Your task to perform on an android device: toggle sleep mode Image 0: 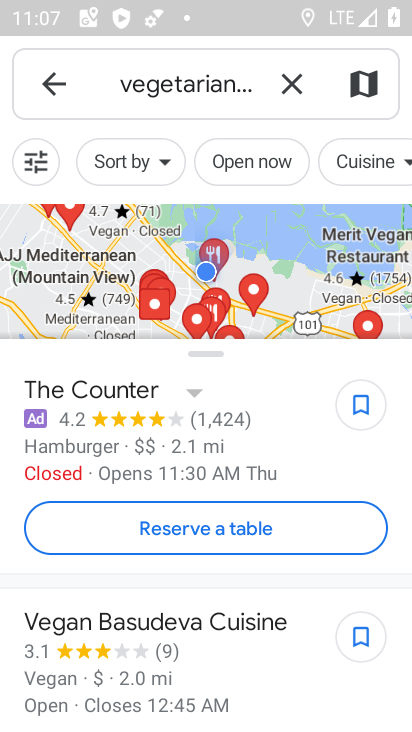
Step 0: click (56, 78)
Your task to perform on an android device: toggle sleep mode Image 1: 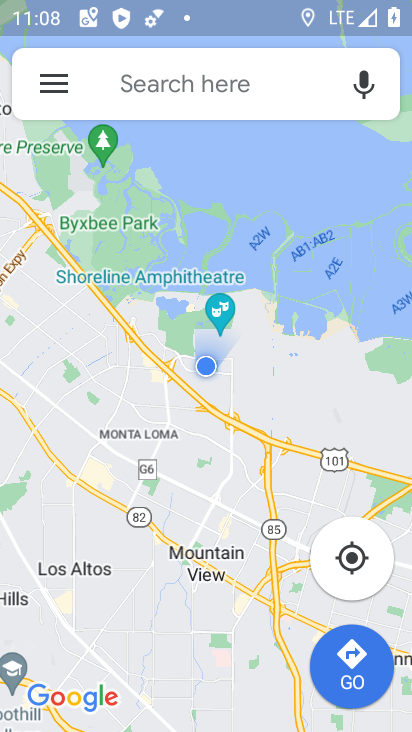
Step 1: press home button
Your task to perform on an android device: toggle sleep mode Image 2: 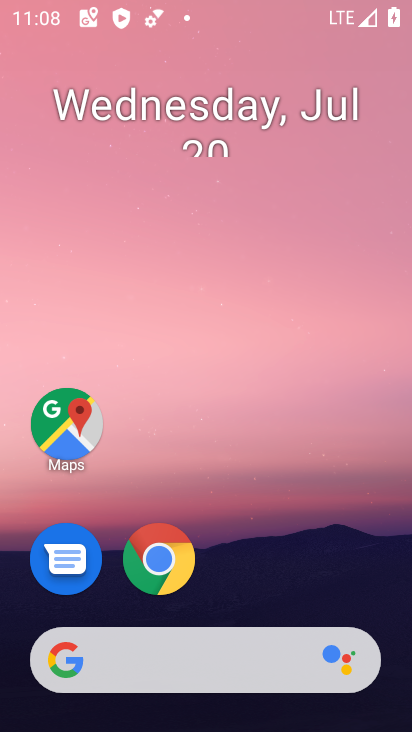
Step 2: drag from (223, 658) to (270, 193)
Your task to perform on an android device: toggle sleep mode Image 3: 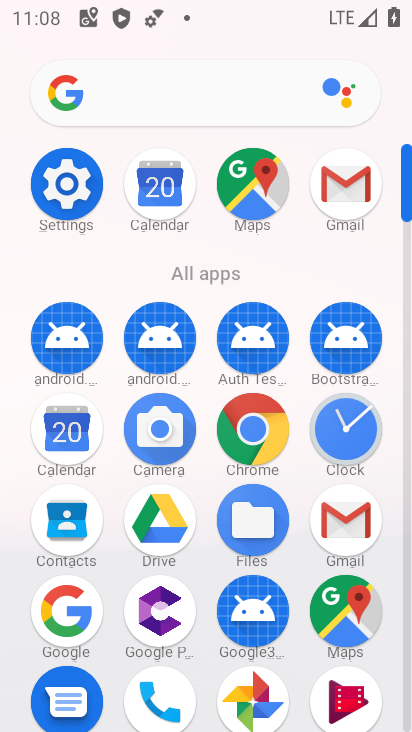
Step 3: click (86, 217)
Your task to perform on an android device: toggle sleep mode Image 4: 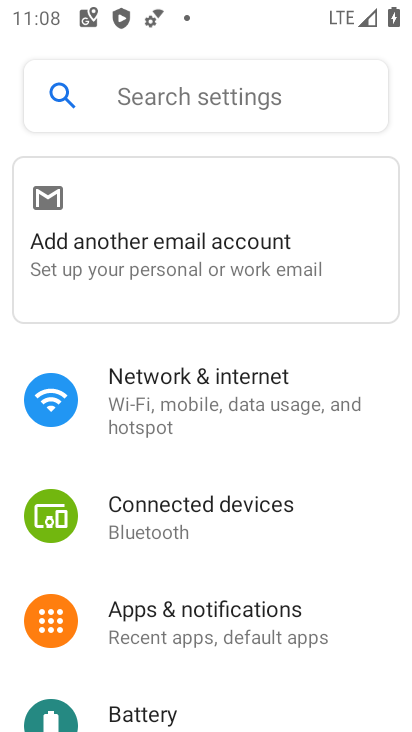
Step 4: drag from (213, 599) to (214, 256)
Your task to perform on an android device: toggle sleep mode Image 5: 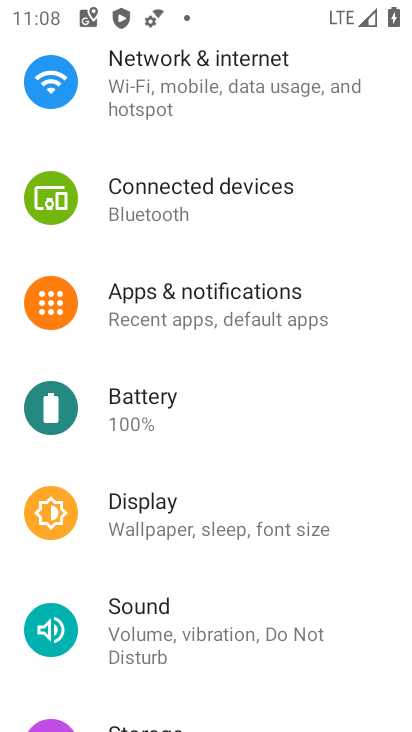
Step 5: click (197, 511)
Your task to perform on an android device: toggle sleep mode Image 6: 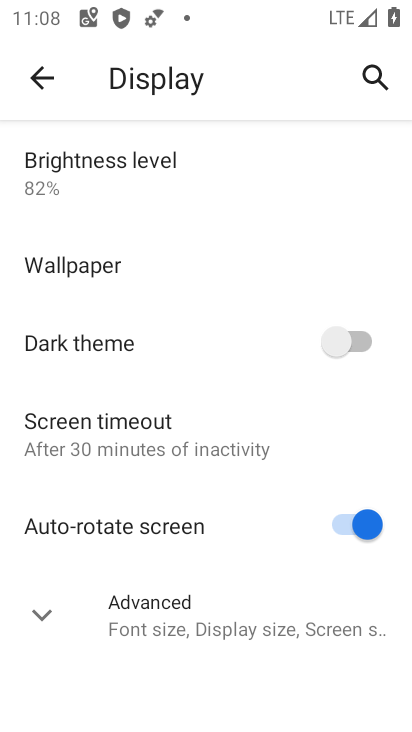
Step 6: click (103, 615)
Your task to perform on an android device: toggle sleep mode Image 7: 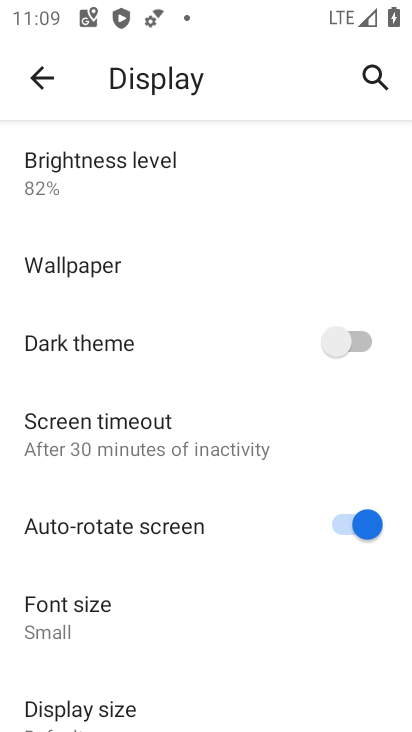
Step 7: task complete